Your task to perform on an android device: make emails show in primary in the gmail app Image 0: 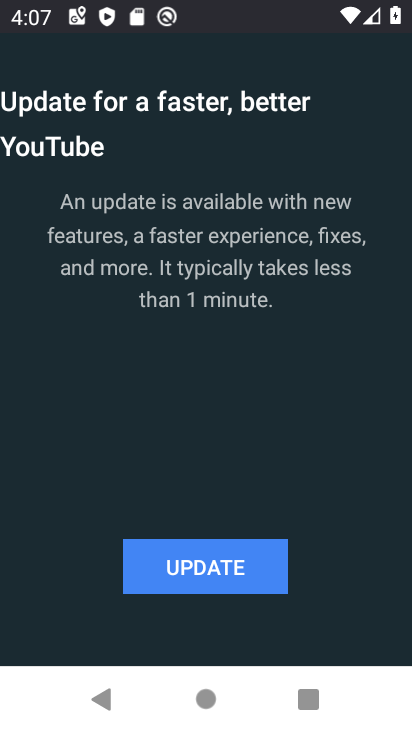
Step 0: press home button
Your task to perform on an android device: make emails show in primary in the gmail app Image 1: 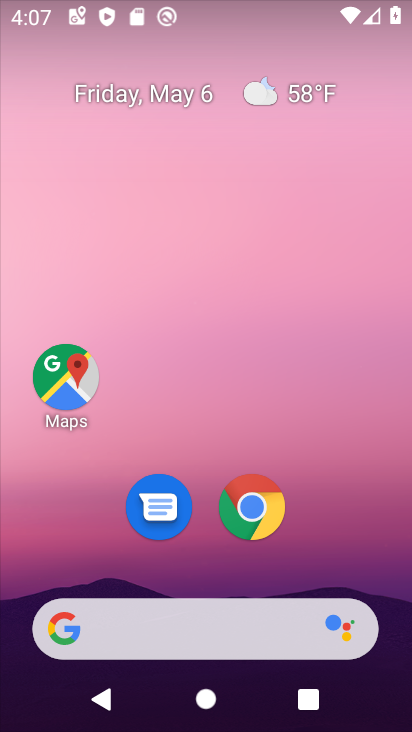
Step 1: drag from (357, 567) to (306, 62)
Your task to perform on an android device: make emails show in primary in the gmail app Image 2: 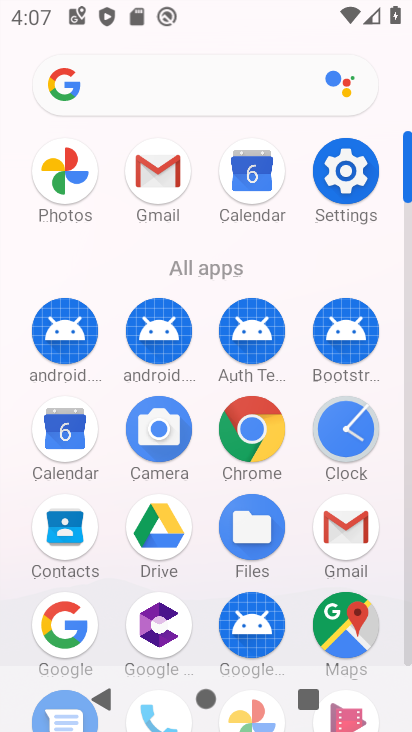
Step 2: click (154, 156)
Your task to perform on an android device: make emails show in primary in the gmail app Image 3: 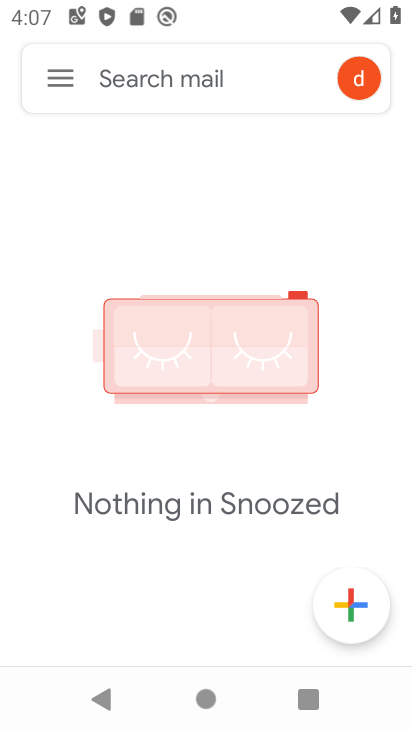
Step 3: click (70, 72)
Your task to perform on an android device: make emails show in primary in the gmail app Image 4: 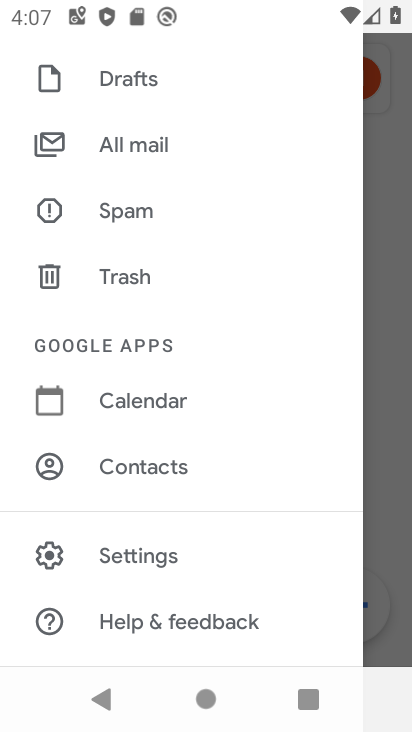
Step 4: click (244, 550)
Your task to perform on an android device: make emails show in primary in the gmail app Image 5: 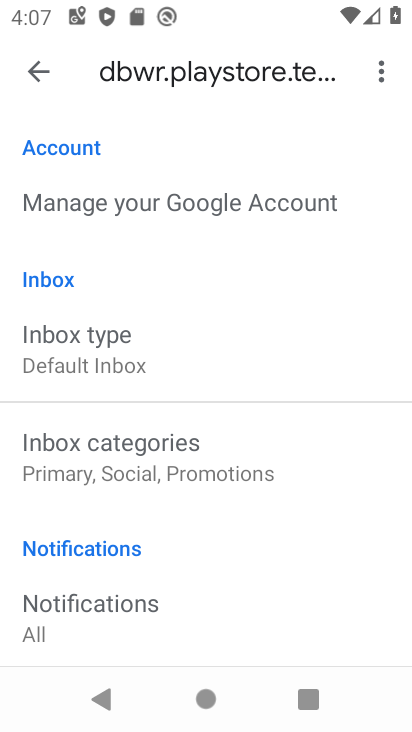
Step 5: task complete